Your task to perform on an android device: Go to wifi settings Image 0: 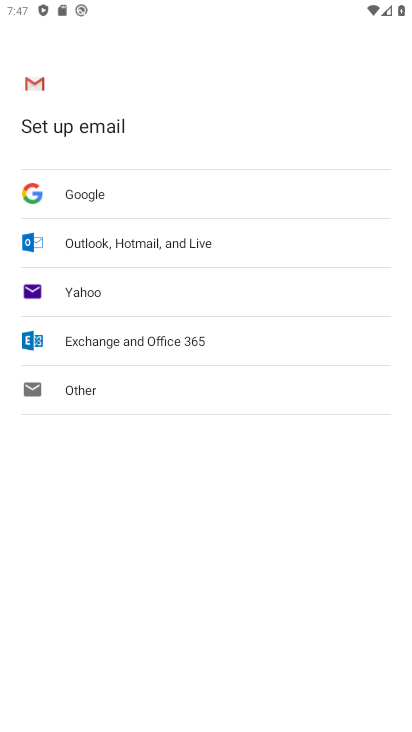
Step 0: press home button
Your task to perform on an android device: Go to wifi settings Image 1: 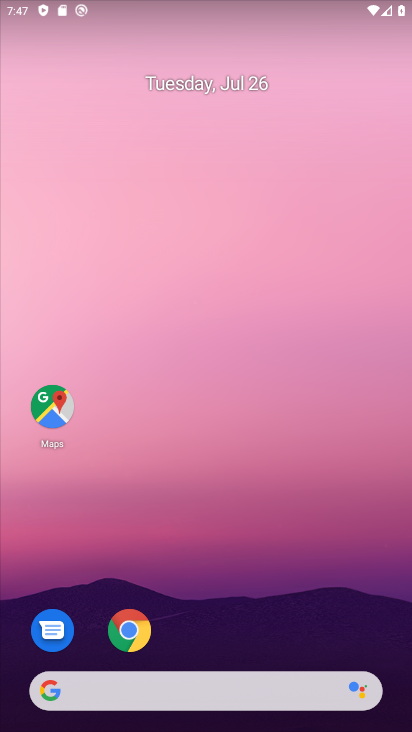
Step 1: drag from (183, 696) to (196, 177)
Your task to perform on an android device: Go to wifi settings Image 2: 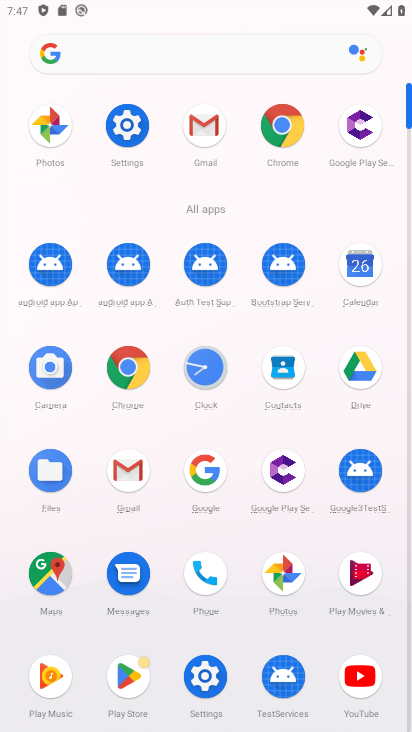
Step 2: click (128, 127)
Your task to perform on an android device: Go to wifi settings Image 3: 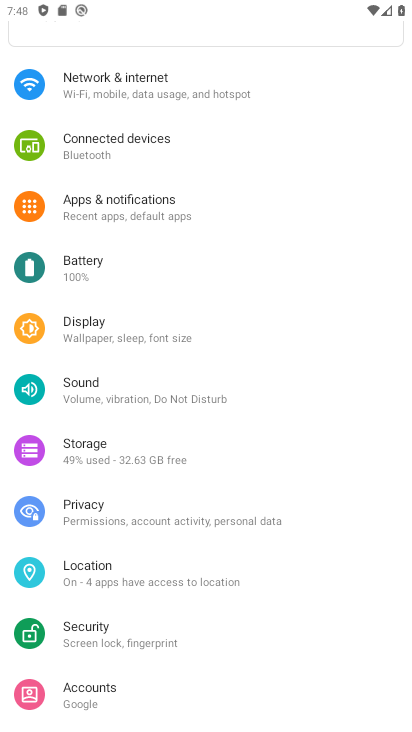
Step 3: click (120, 91)
Your task to perform on an android device: Go to wifi settings Image 4: 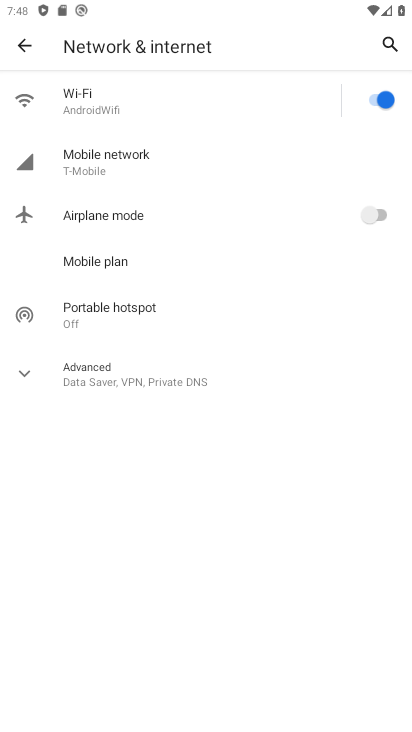
Step 4: click (90, 114)
Your task to perform on an android device: Go to wifi settings Image 5: 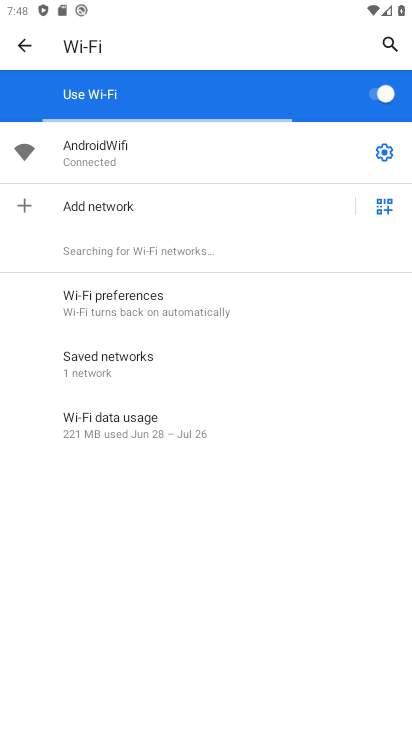
Step 5: click (387, 156)
Your task to perform on an android device: Go to wifi settings Image 6: 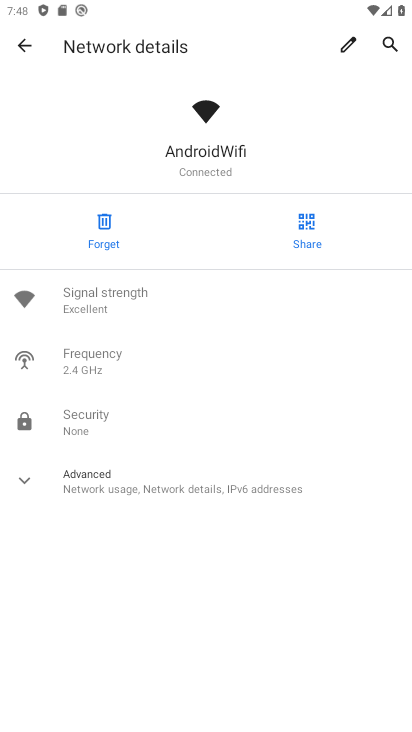
Step 6: task complete